Your task to perform on an android device: Go to CNN.com Image 0: 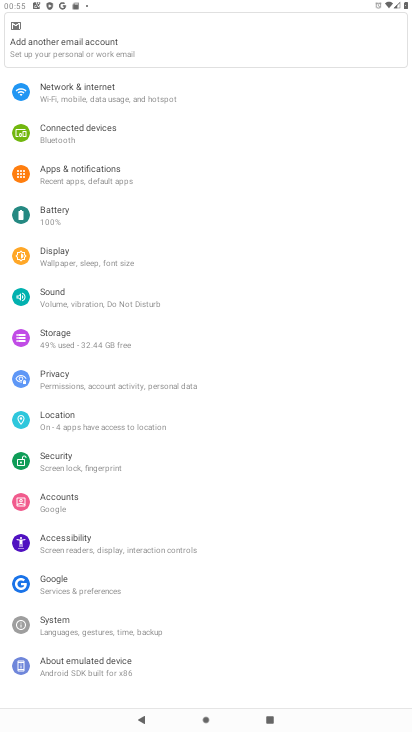
Step 0: press home button
Your task to perform on an android device: Go to CNN.com Image 1: 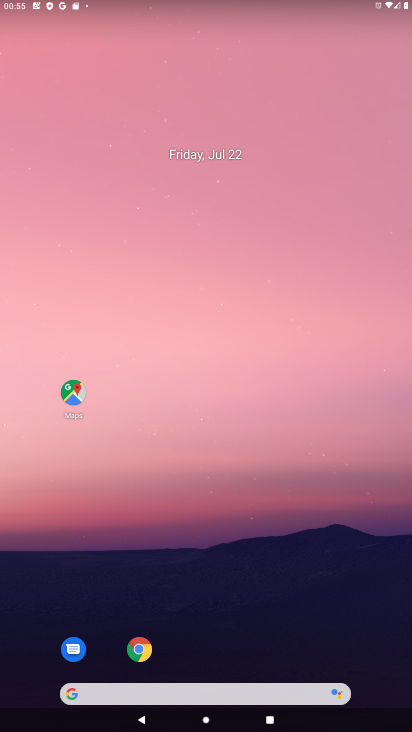
Step 1: drag from (256, 602) to (255, 133)
Your task to perform on an android device: Go to CNN.com Image 2: 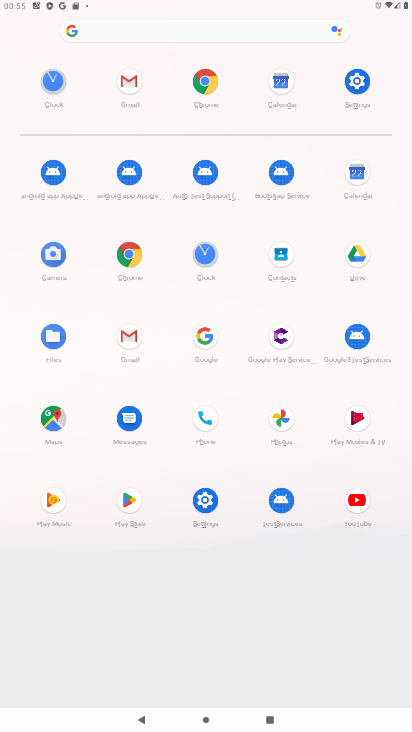
Step 2: click (211, 73)
Your task to perform on an android device: Go to CNN.com Image 3: 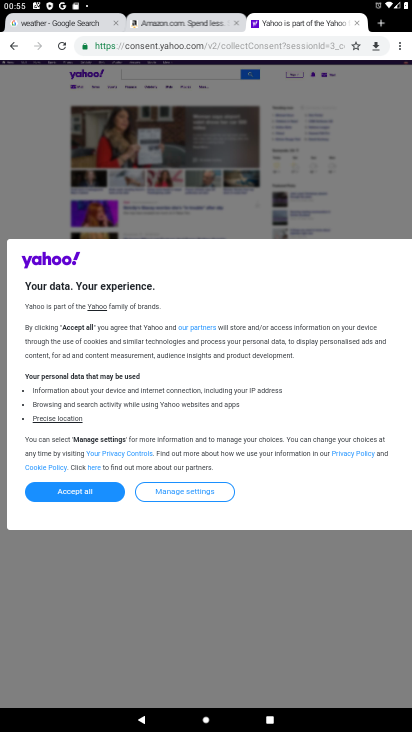
Step 3: click (226, 50)
Your task to perform on an android device: Go to CNN.com Image 4: 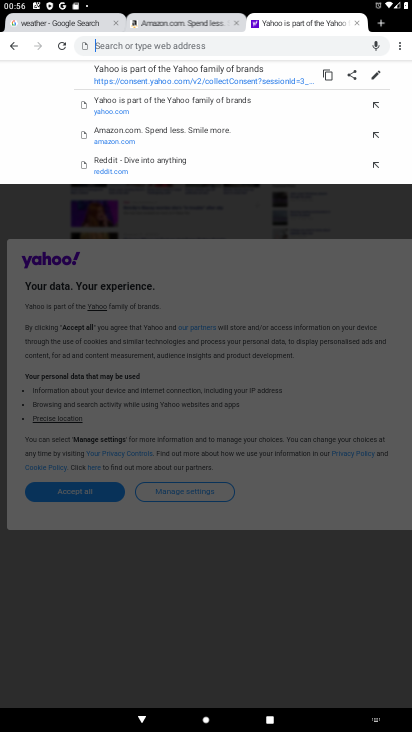
Step 4: type "cnn.com"
Your task to perform on an android device: Go to CNN.com Image 5: 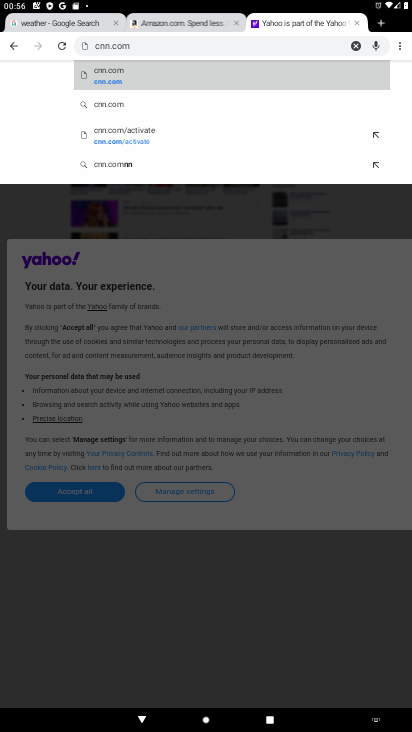
Step 5: click (112, 66)
Your task to perform on an android device: Go to CNN.com Image 6: 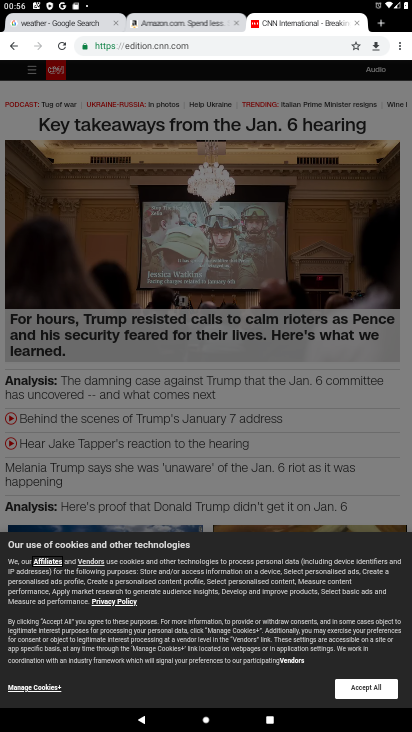
Step 6: task complete